Your task to perform on an android device: choose inbox layout in the gmail app Image 0: 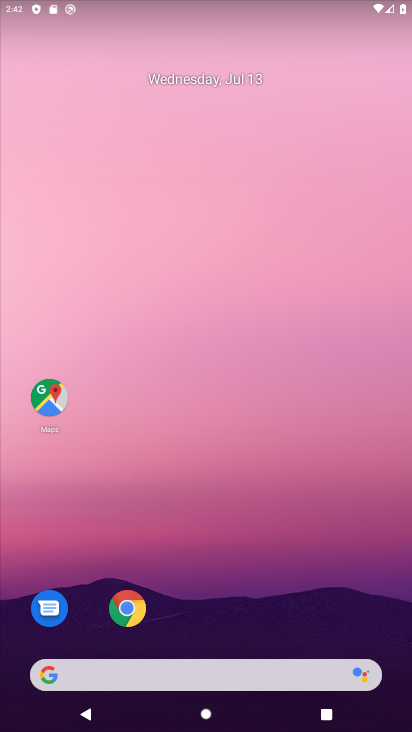
Step 0: drag from (189, 650) to (276, 140)
Your task to perform on an android device: choose inbox layout in the gmail app Image 1: 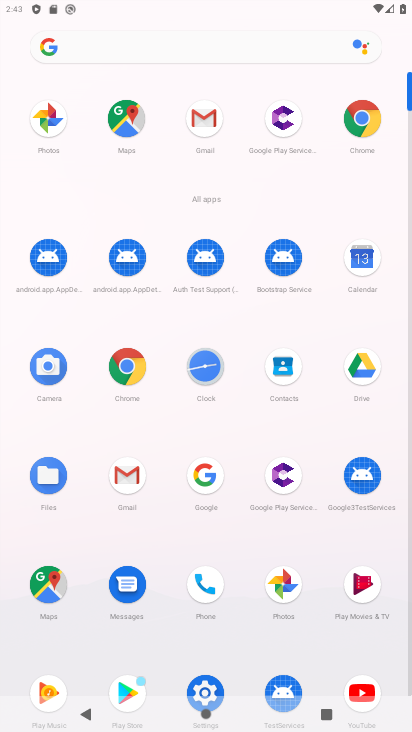
Step 1: click (116, 475)
Your task to perform on an android device: choose inbox layout in the gmail app Image 2: 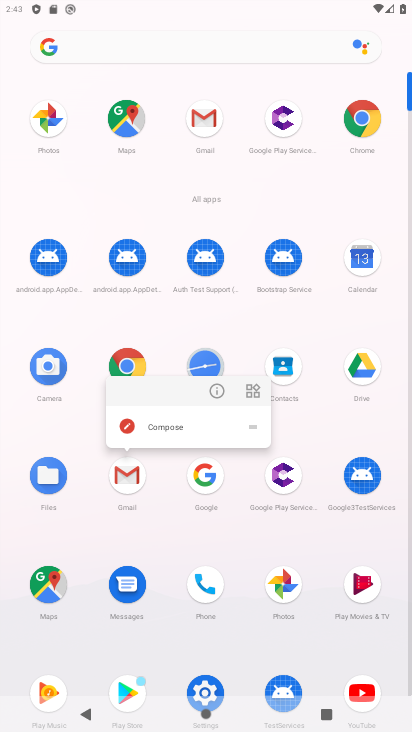
Step 2: click (123, 481)
Your task to perform on an android device: choose inbox layout in the gmail app Image 3: 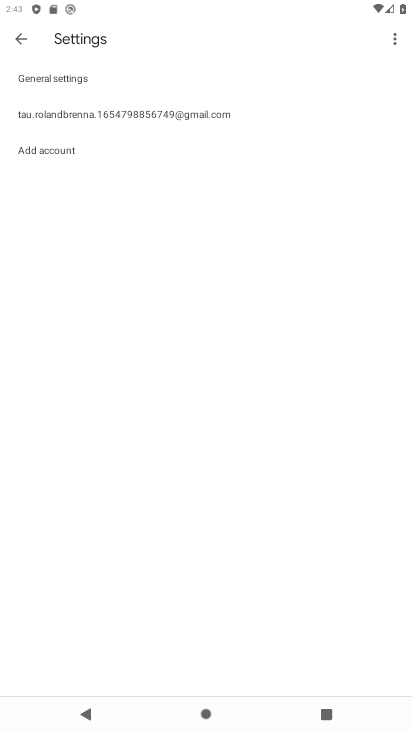
Step 3: click (218, 105)
Your task to perform on an android device: choose inbox layout in the gmail app Image 4: 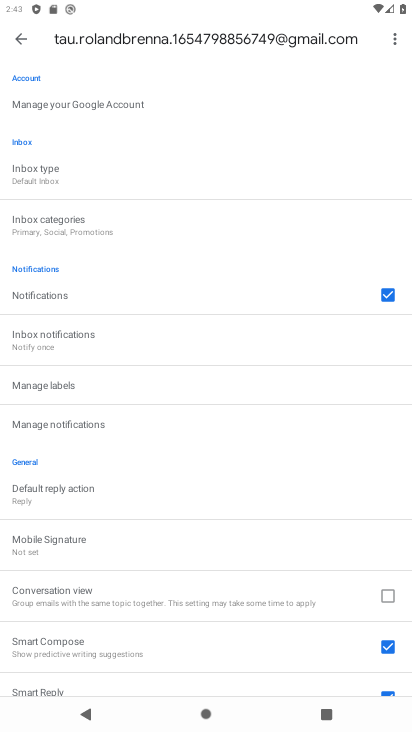
Step 4: click (162, 179)
Your task to perform on an android device: choose inbox layout in the gmail app Image 5: 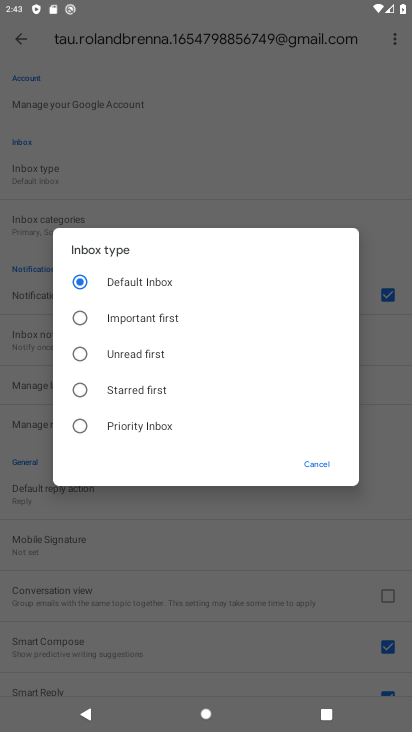
Step 5: click (134, 424)
Your task to perform on an android device: choose inbox layout in the gmail app Image 6: 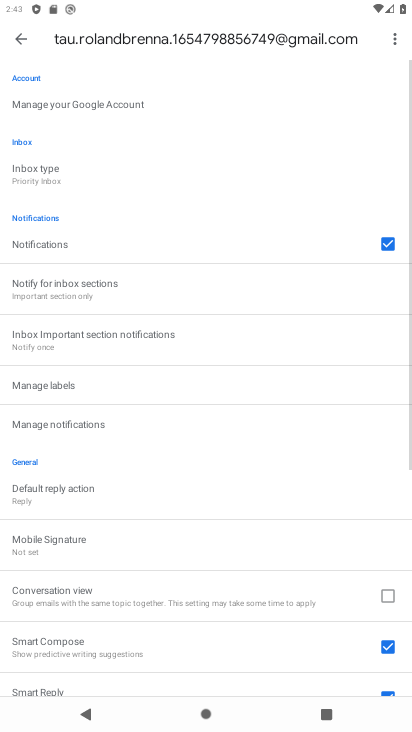
Step 6: task complete